Your task to perform on an android device: Go to Google maps Image 0: 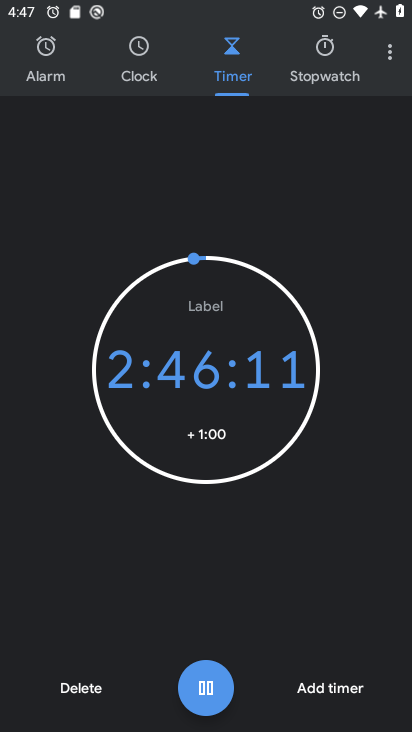
Step 0: press back button
Your task to perform on an android device: Go to Google maps Image 1: 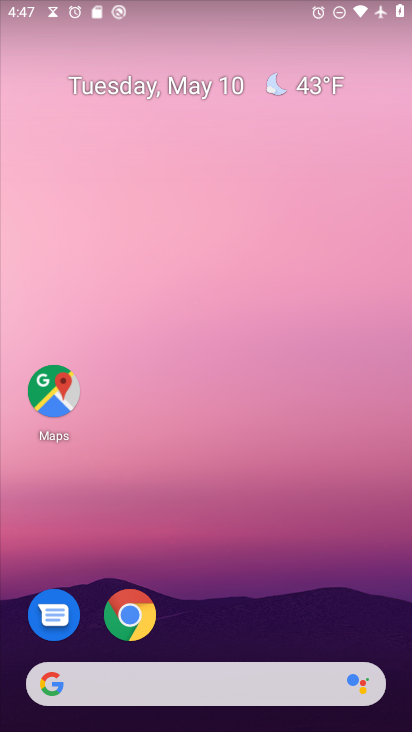
Step 1: click (45, 389)
Your task to perform on an android device: Go to Google maps Image 2: 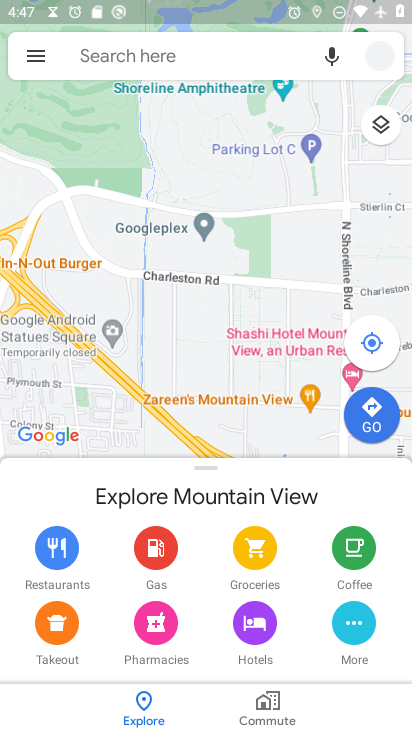
Step 2: click (202, 43)
Your task to perform on an android device: Go to Google maps Image 3: 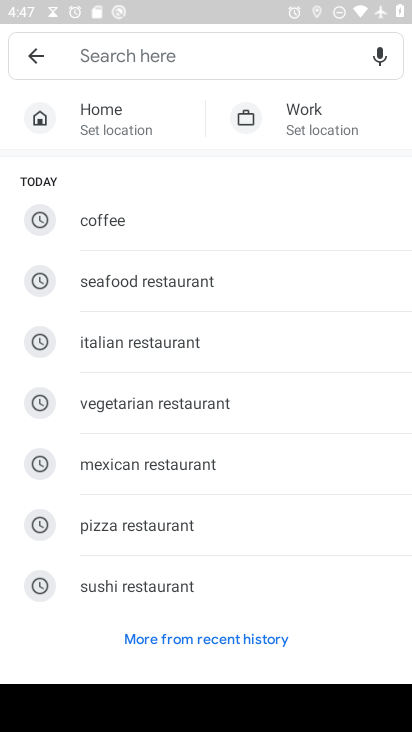
Step 3: click (21, 48)
Your task to perform on an android device: Go to Google maps Image 4: 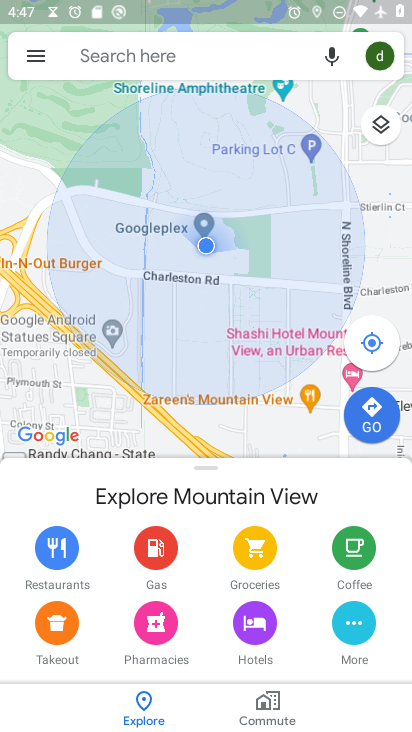
Step 4: task complete